Your task to perform on an android device: Open Reddit.com Image 0: 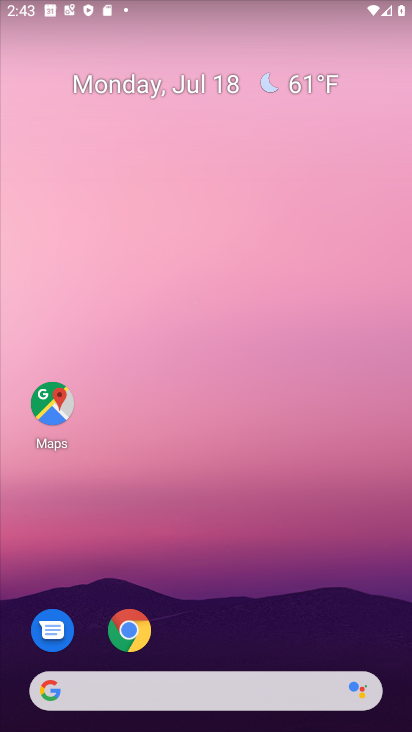
Step 0: click (204, 692)
Your task to perform on an android device: Open Reddit.com Image 1: 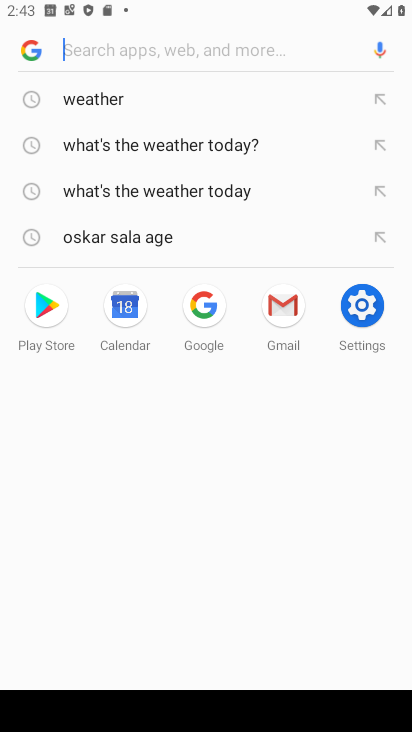
Step 1: type "reddit.com"
Your task to perform on an android device: Open Reddit.com Image 2: 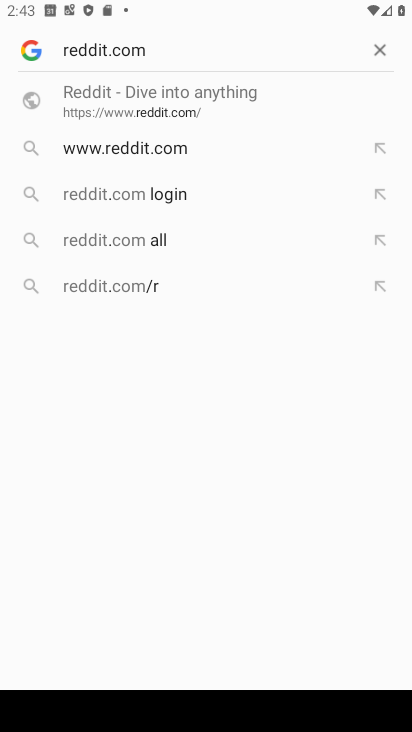
Step 2: click (151, 111)
Your task to perform on an android device: Open Reddit.com Image 3: 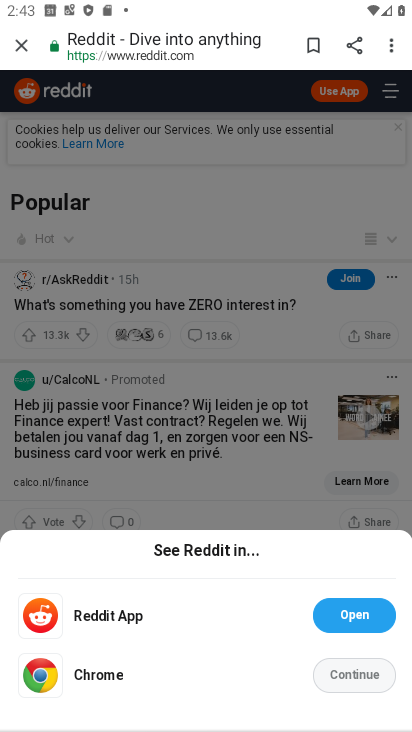
Step 3: click (372, 676)
Your task to perform on an android device: Open Reddit.com Image 4: 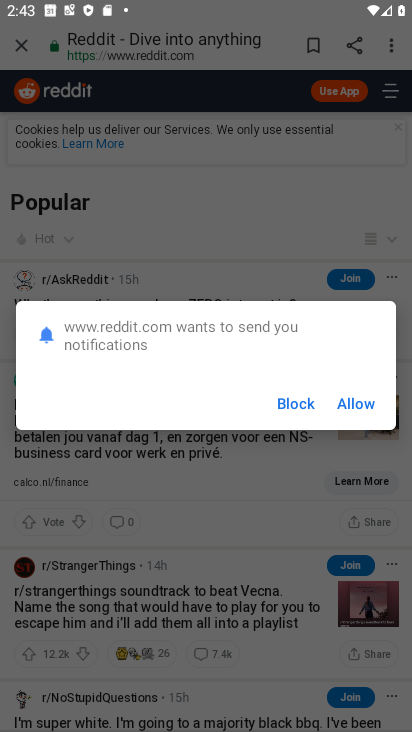
Step 4: click (298, 399)
Your task to perform on an android device: Open Reddit.com Image 5: 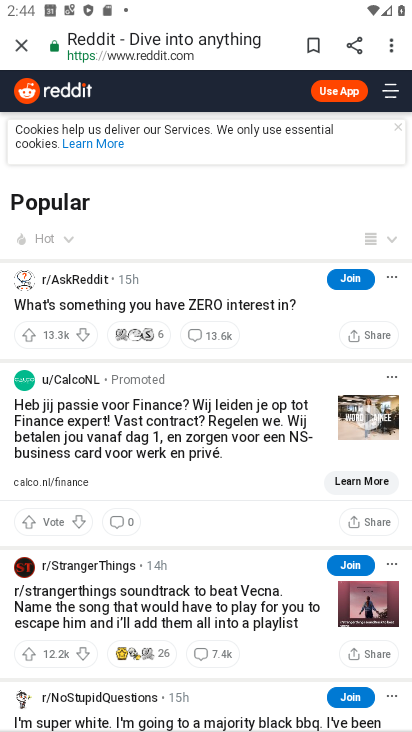
Step 5: task complete